Your task to perform on an android device: open sync settings in chrome Image 0: 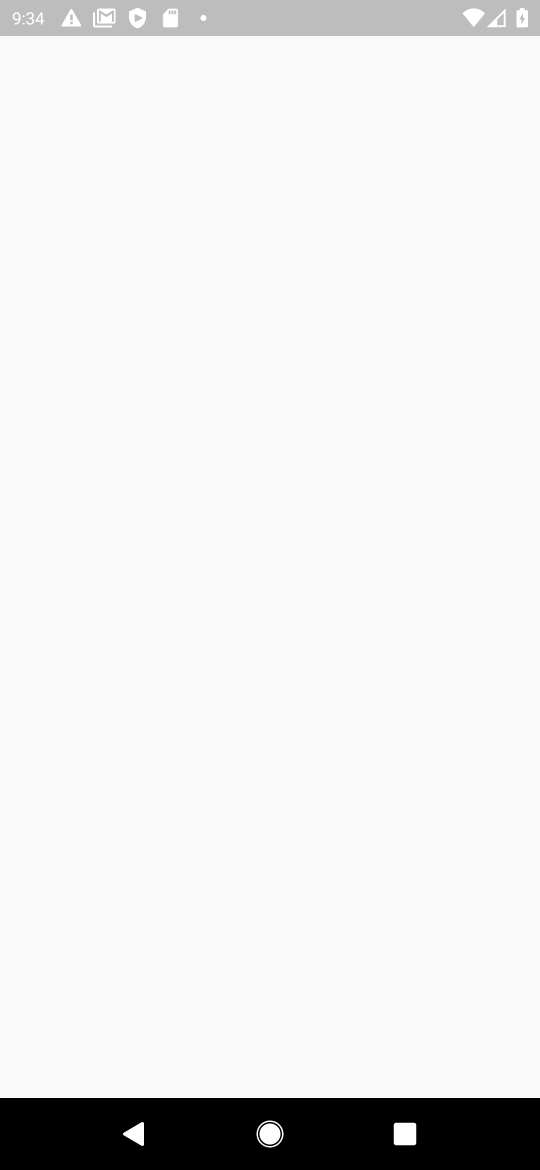
Step 0: press home button
Your task to perform on an android device: open sync settings in chrome Image 1: 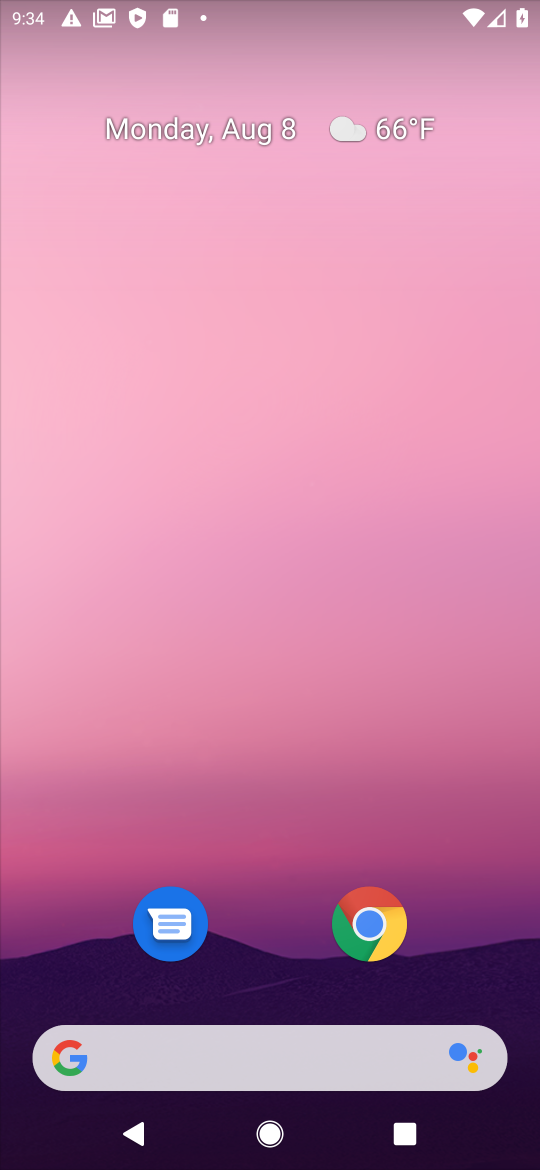
Step 1: drag from (285, 997) to (334, 63)
Your task to perform on an android device: open sync settings in chrome Image 2: 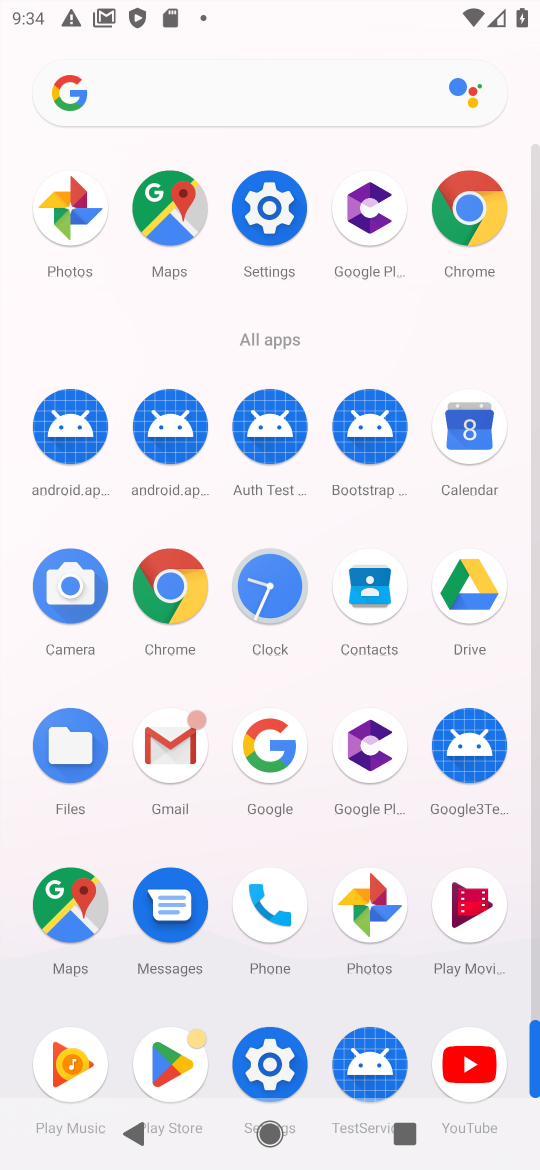
Step 2: click (254, 1046)
Your task to perform on an android device: open sync settings in chrome Image 3: 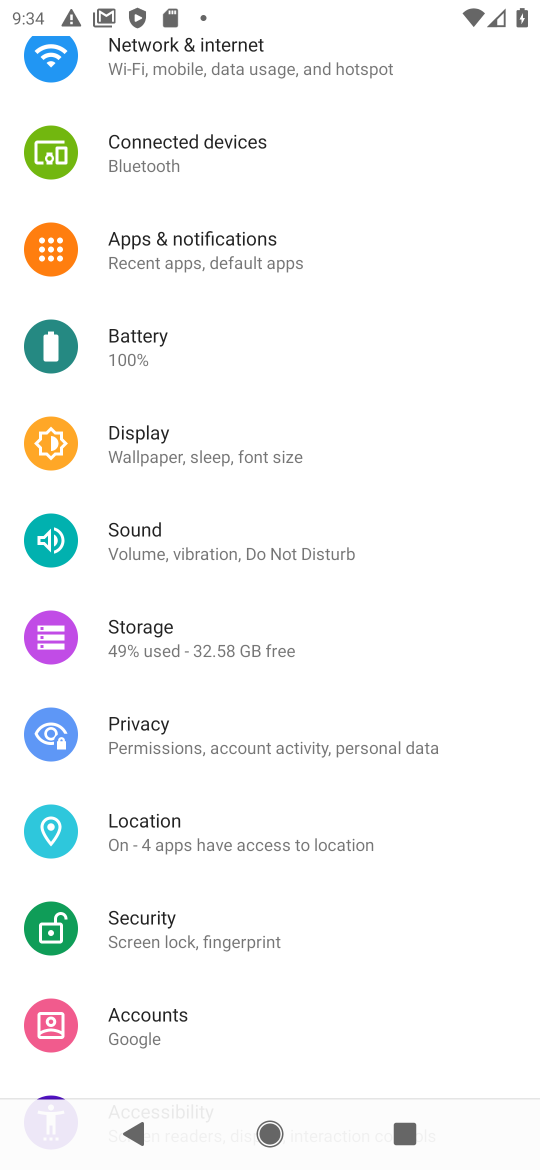
Step 3: press home button
Your task to perform on an android device: open sync settings in chrome Image 4: 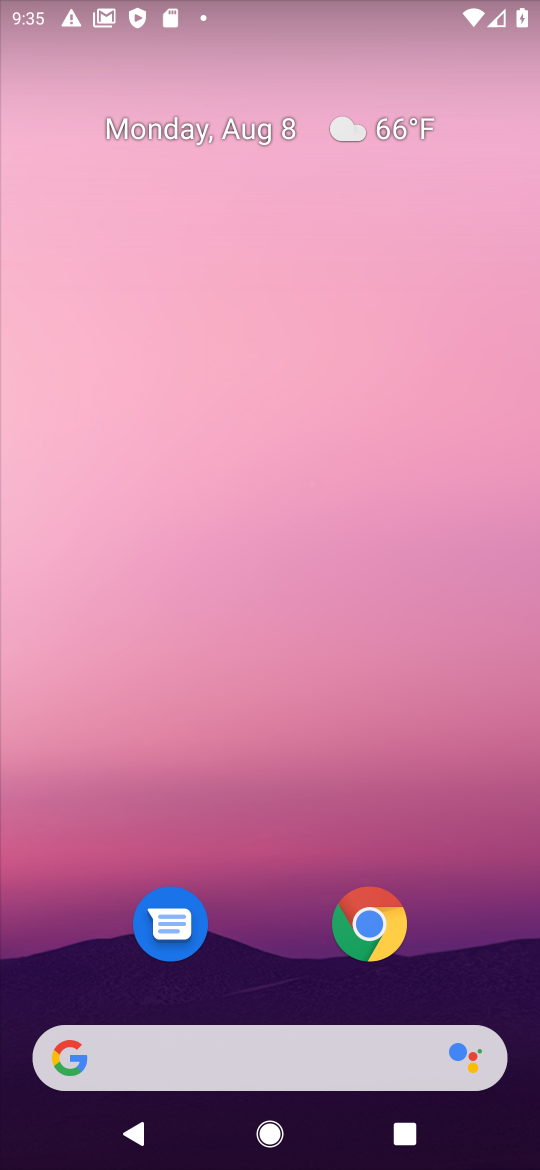
Step 4: drag from (282, 794) to (395, 105)
Your task to perform on an android device: open sync settings in chrome Image 5: 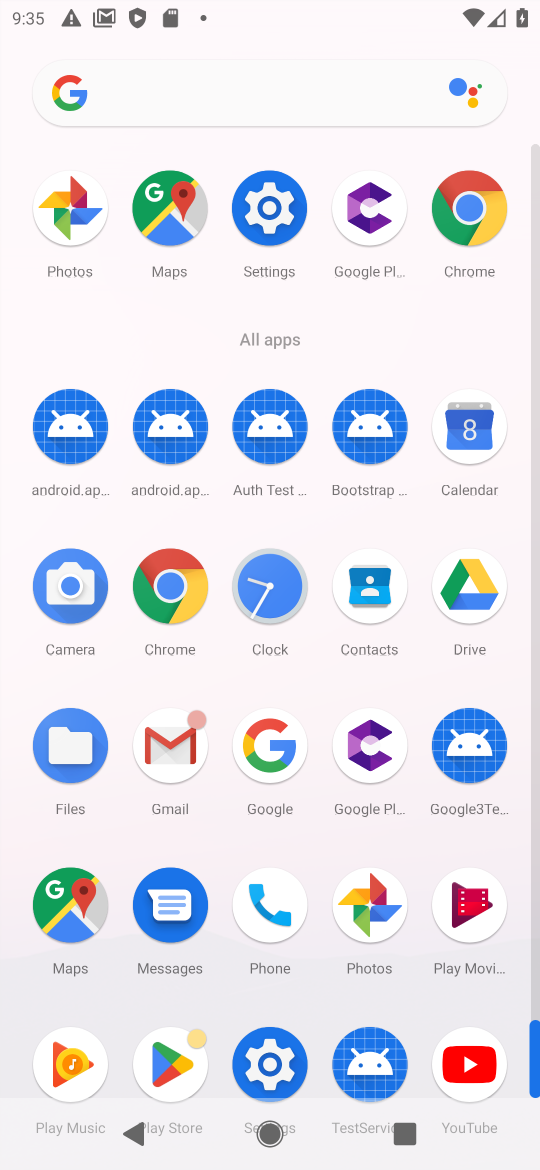
Step 5: click (177, 573)
Your task to perform on an android device: open sync settings in chrome Image 6: 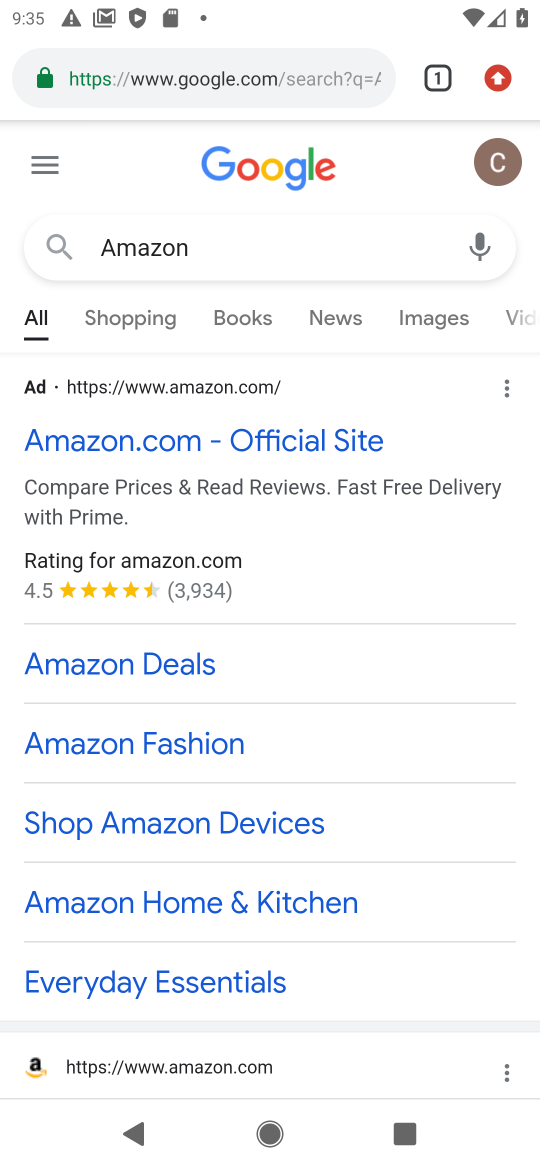
Step 6: drag from (491, 69) to (231, 950)
Your task to perform on an android device: open sync settings in chrome Image 7: 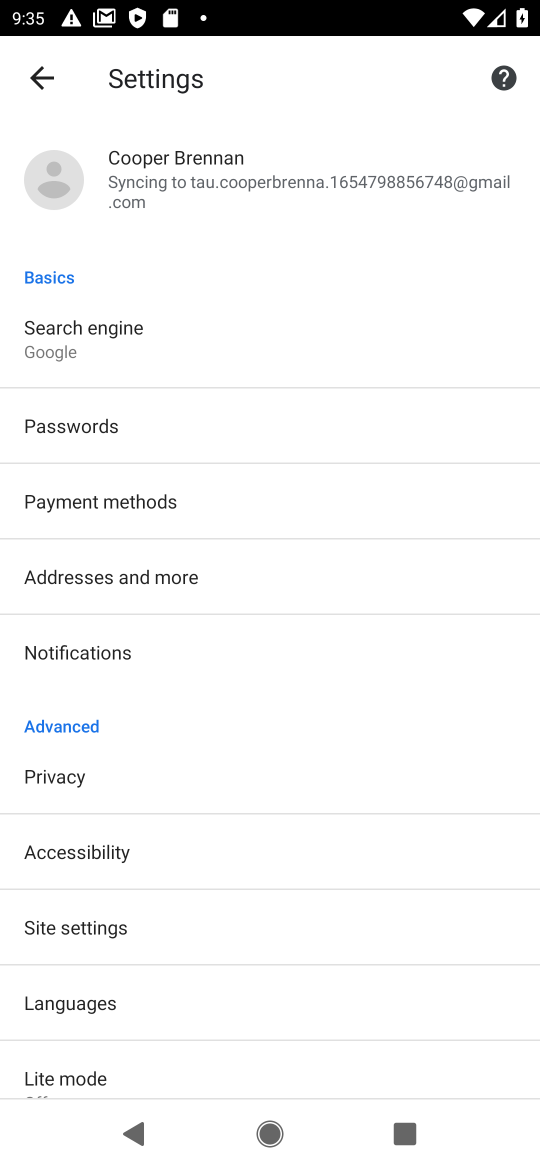
Step 7: click (145, 170)
Your task to perform on an android device: open sync settings in chrome Image 8: 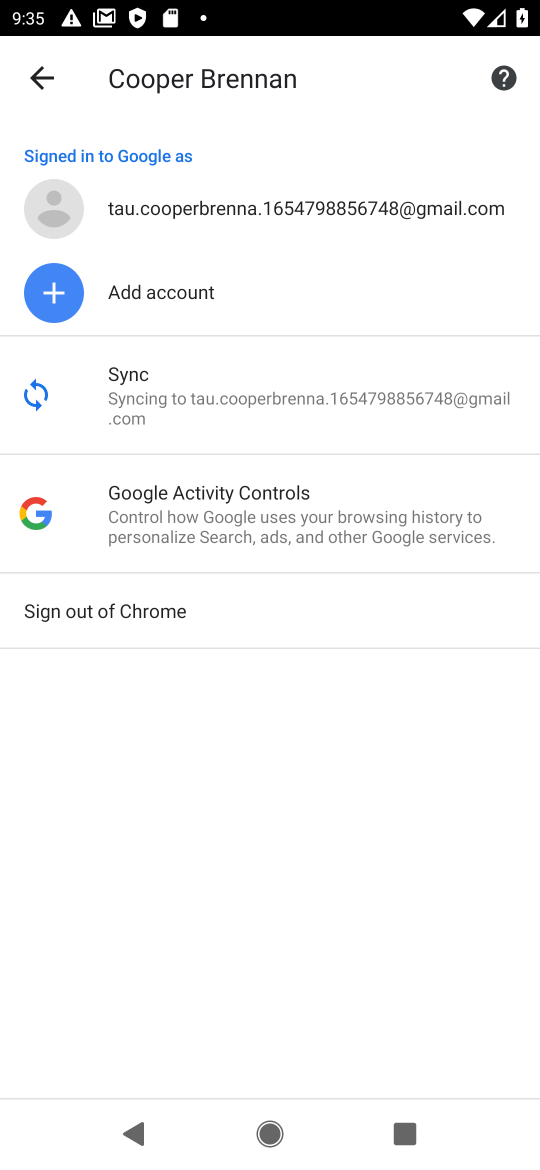
Step 8: click (139, 387)
Your task to perform on an android device: open sync settings in chrome Image 9: 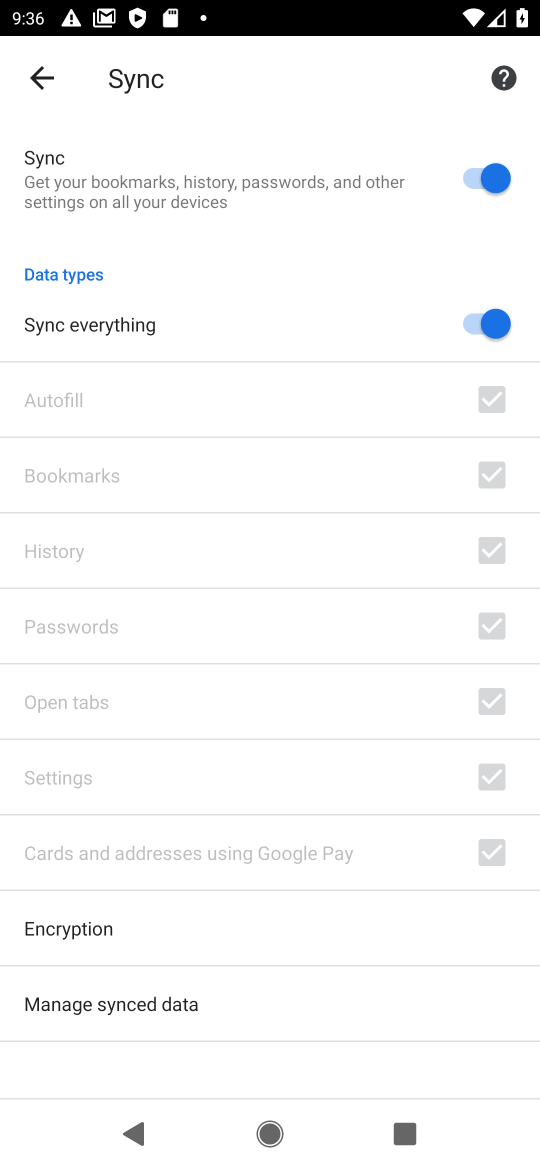
Step 9: task complete